Your task to perform on an android device: Add "usb-c to usb-a" to the cart on costco, then select checkout. Image 0: 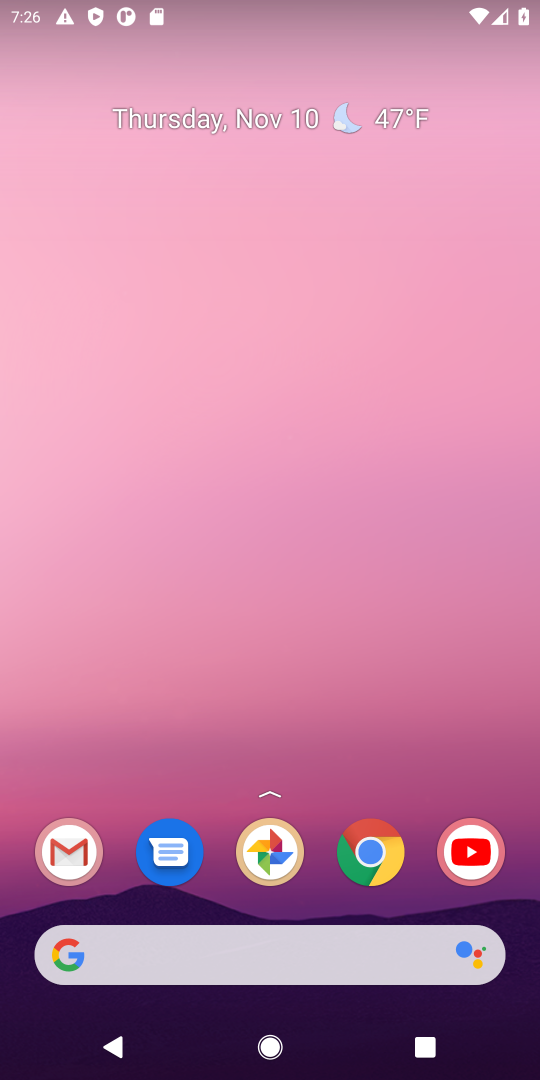
Step 0: click (370, 854)
Your task to perform on an android device: Add "usb-c to usb-a" to the cart on costco, then select checkout. Image 1: 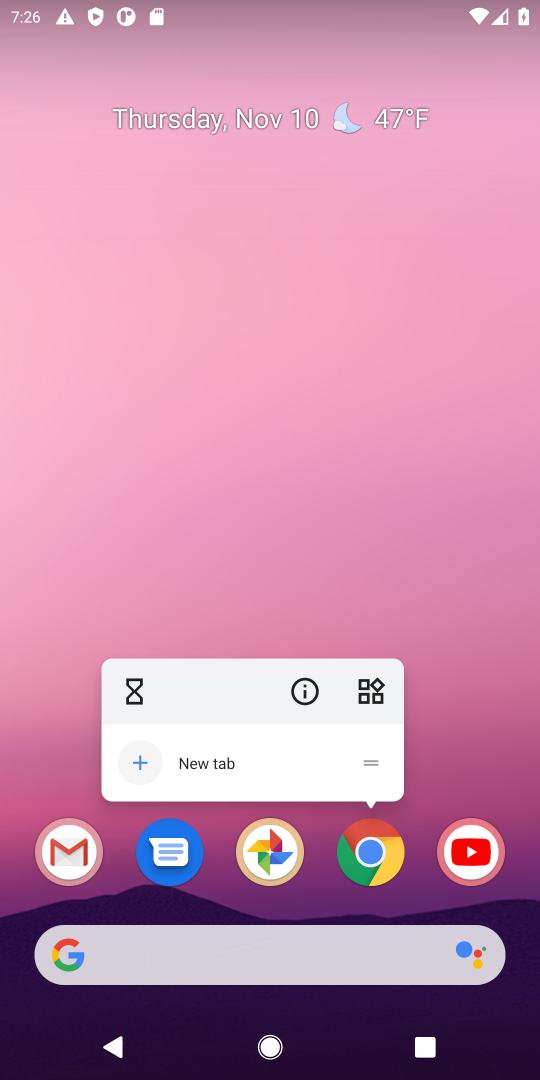
Step 1: click (377, 858)
Your task to perform on an android device: Add "usb-c to usb-a" to the cart on costco, then select checkout. Image 2: 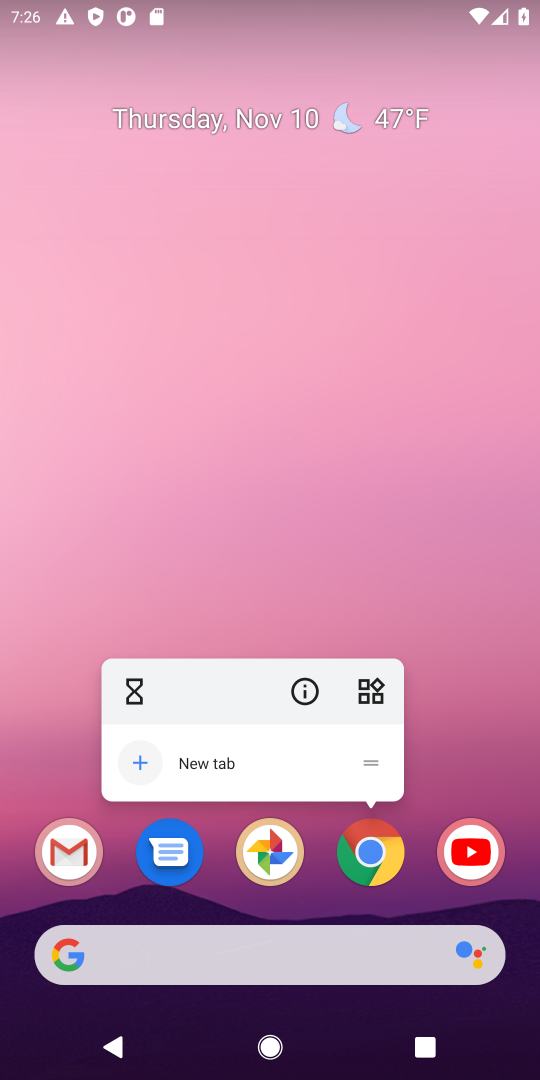
Step 2: click (377, 857)
Your task to perform on an android device: Add "usb-c to usb-a" to the cart on costco, then select checkout. Image 3: 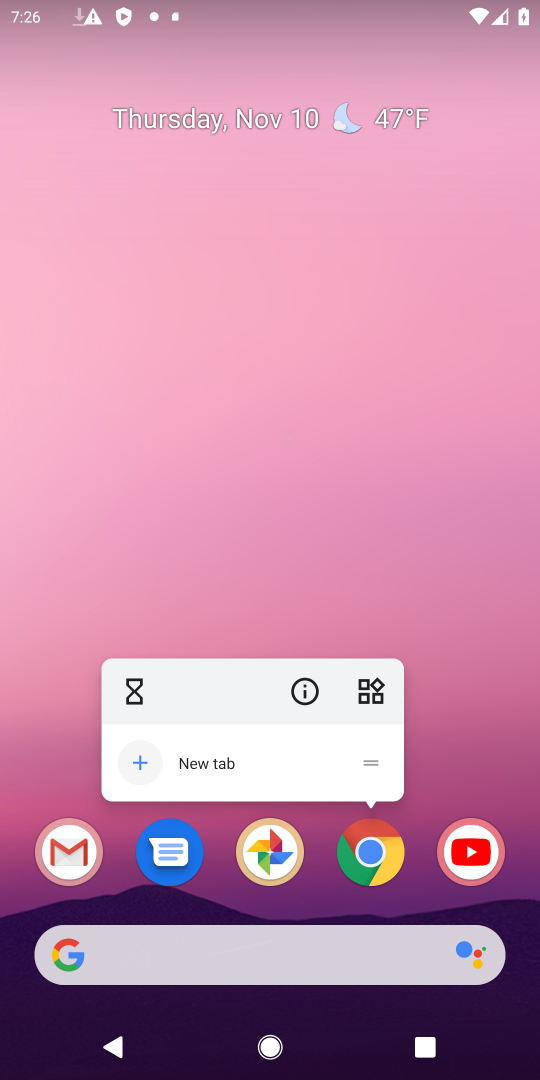
Step 3: click (377, 863)
Your task to perform on an android device: Add "usb-c to usb-a" to the cart on costco, then select checkout. Image 4: 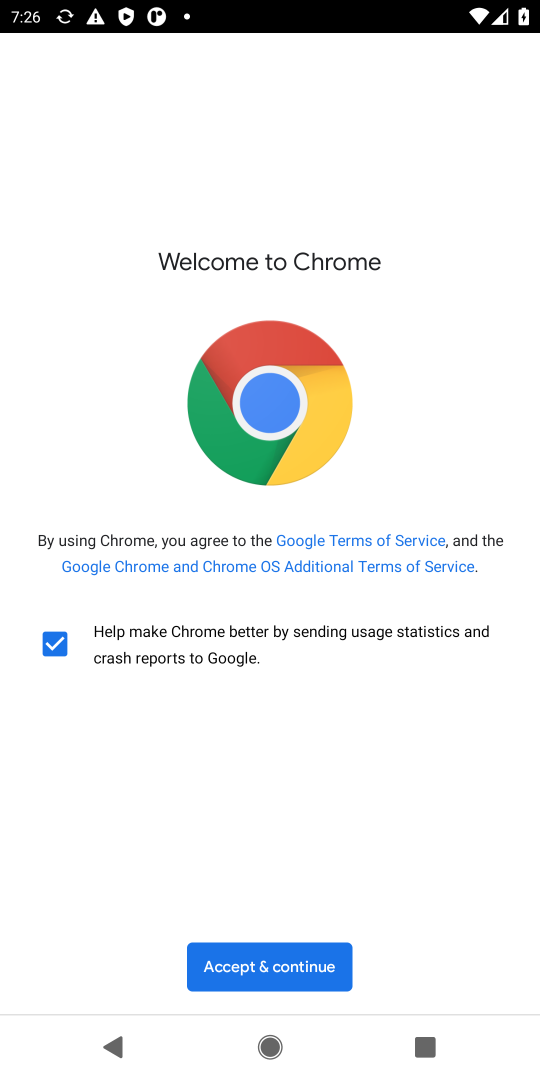
Step 4: click (237, 974)
Your task to perform on an android device: Add "usb-c to usb-a" to the cart on costco, then select checkout. Image 5: 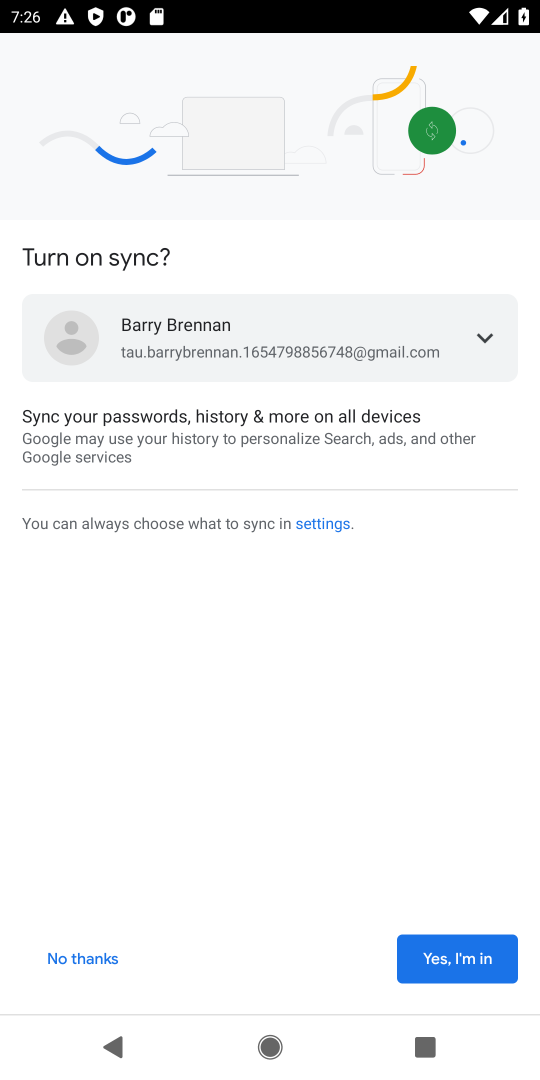
Step 5: click (472, 961)
Your task to perform on an android device: Add "usb-c to usb-a" to the cart on costco, then select checkout. Image 6: 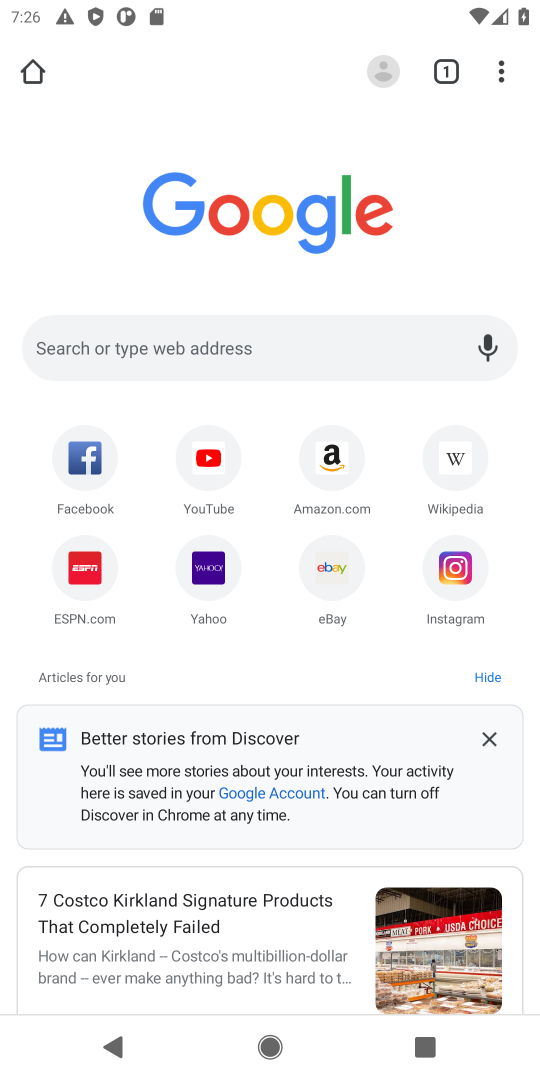
Step 6: click (180, 346)
Your task to perform on an android device: Add "usb-c to usb-a" to the cart on costco, then select checkout. Image 7: 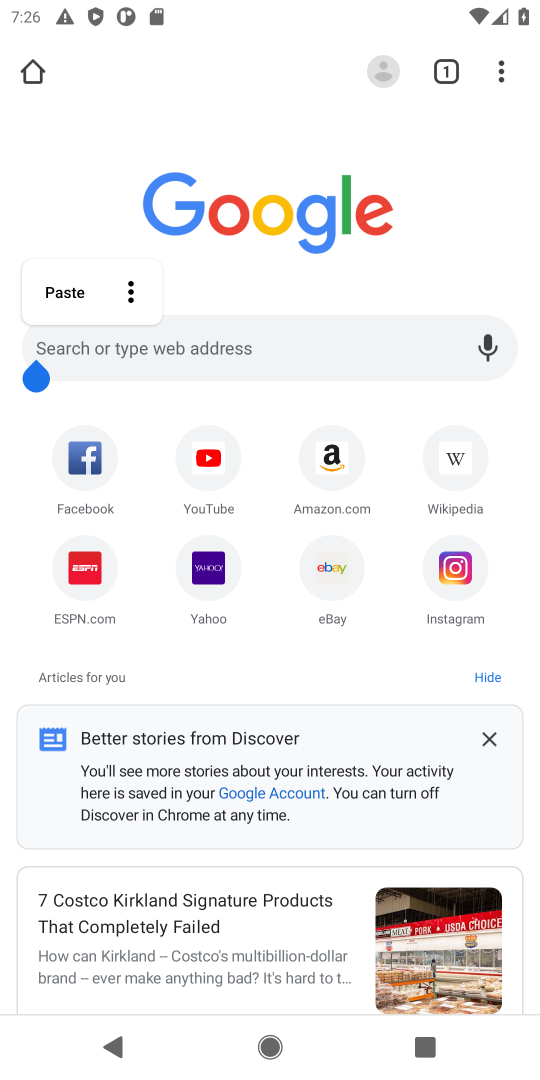
Step 7: click (167, 343)
Your task to perform on an android device: Add "usb-c to usb-a" to the cart on costco, then select checkout. Image 8: 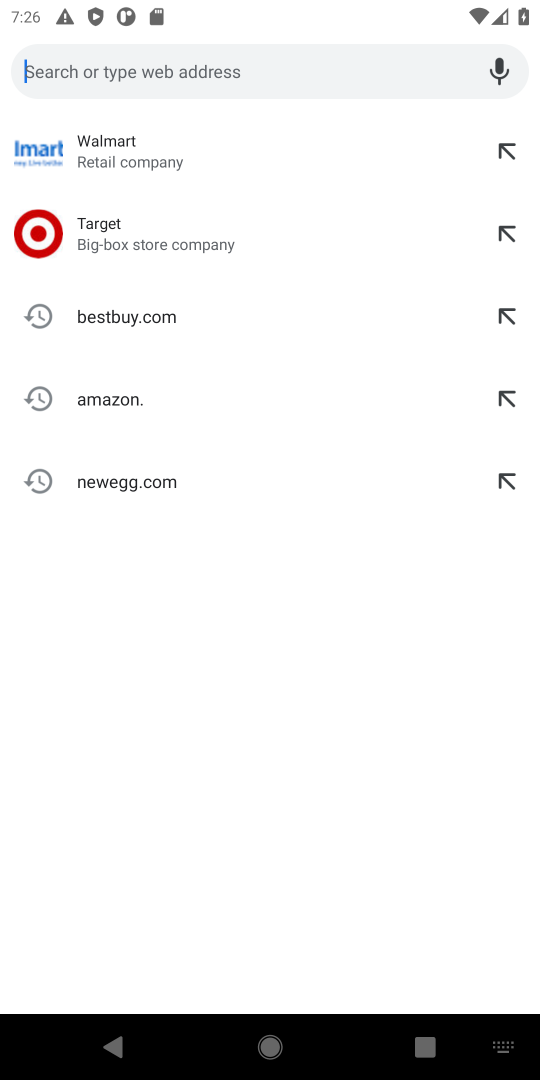
Step 8: type "costco"
Your task to perform on an android device: Add "usb-c to usb-a" to the cart on costco, then select checkout. Image 9: 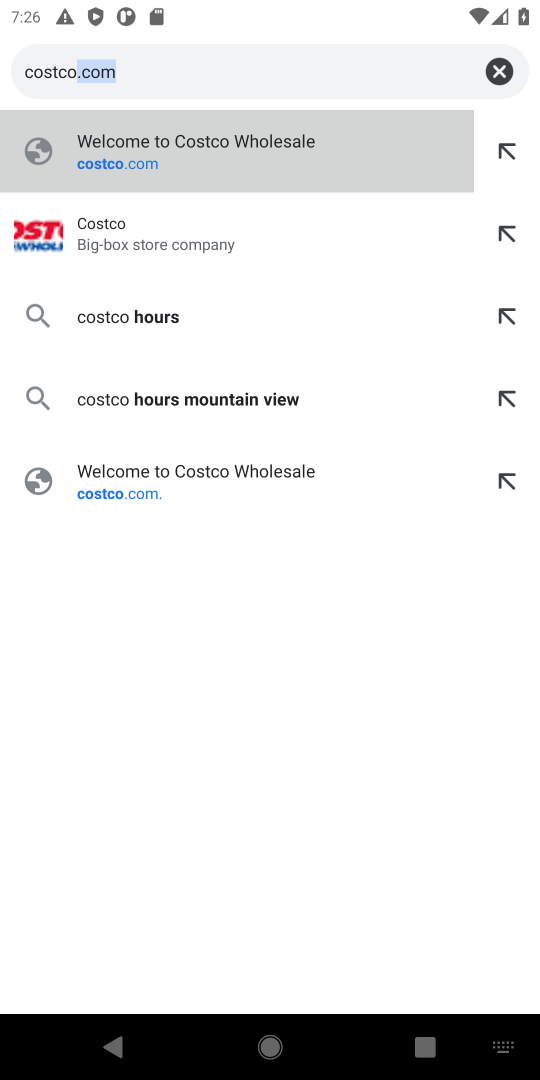
Step 9: press enter
Your task to perform on an android device: Add "usb-c to usb-a" to the cart on costco, then select checkout. Image 10: 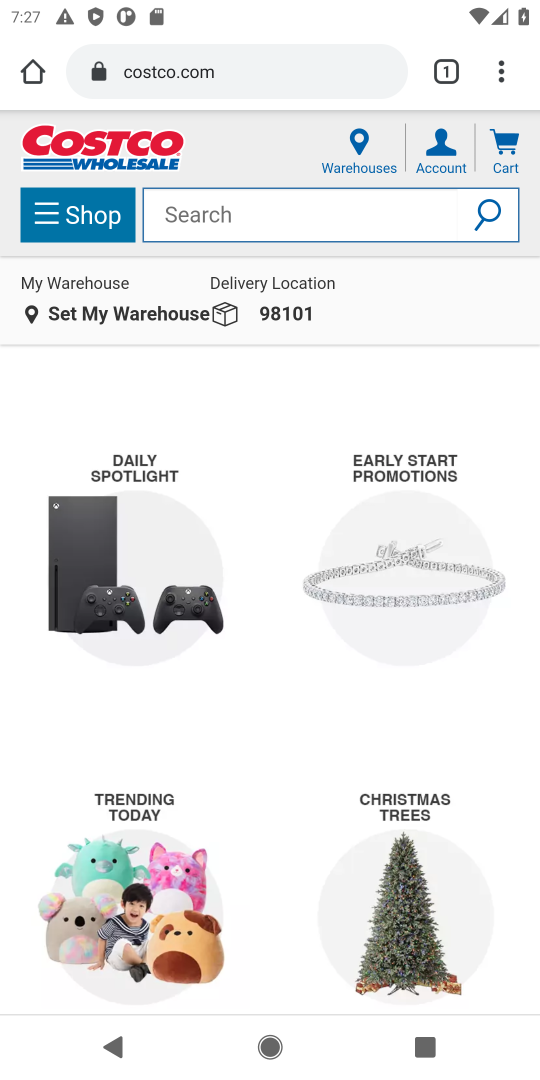
Step 10: click (254, 211)
Your task to perform on an android device: Add "usb-c to usb-a" to the cart on costco, then select checkout. Image 11: 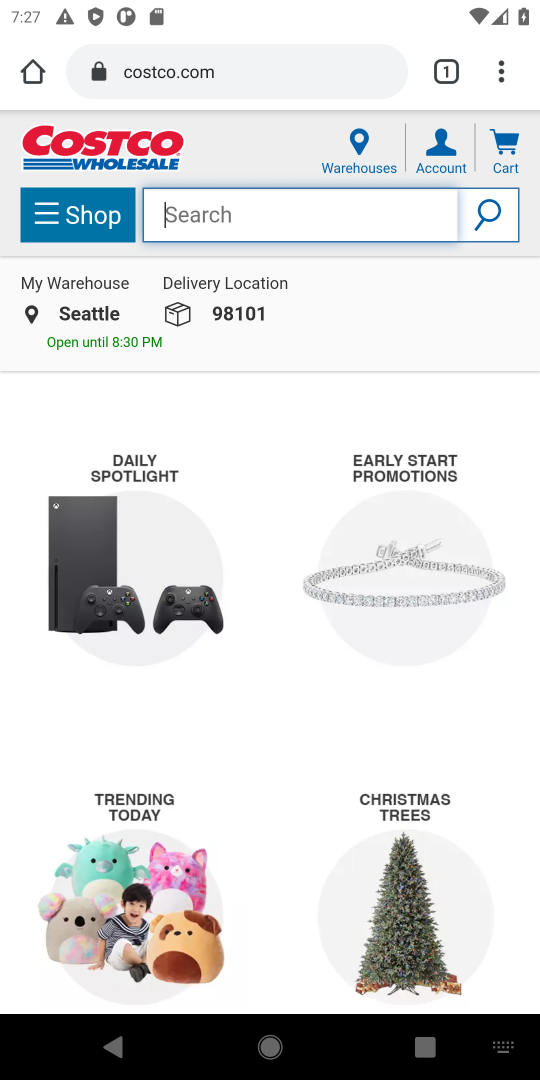
Step 11: type "usb-c to usb-a"
Your task to perform on an android device: Add "usb-c to usb-a" to the cart on costco, then select checkout. Image 12: 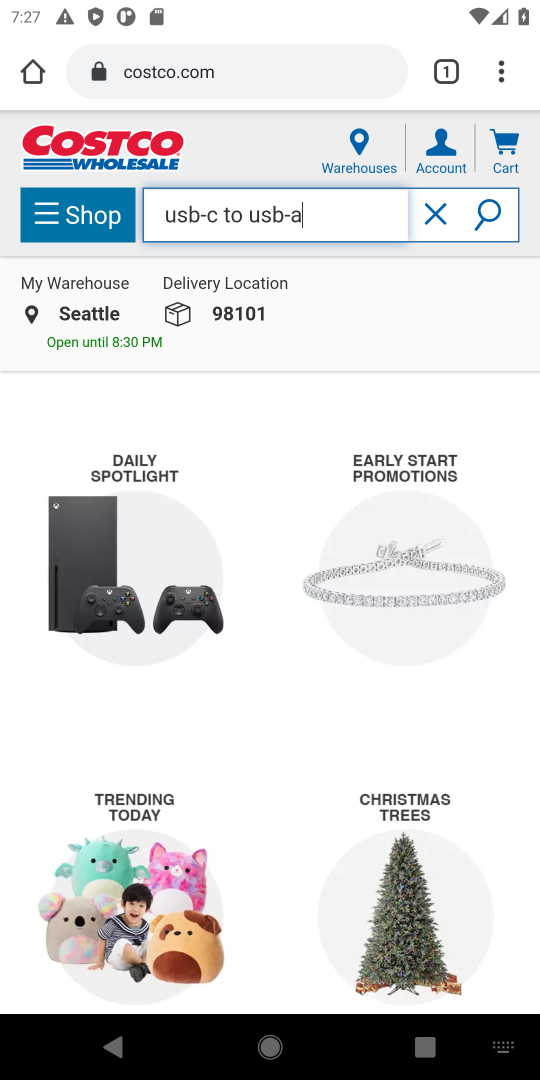
Step 12: press enter
Your task to perform on an android device: Add "usb-c to usb-a" to the cart on costco, then select checkout. Image 13: 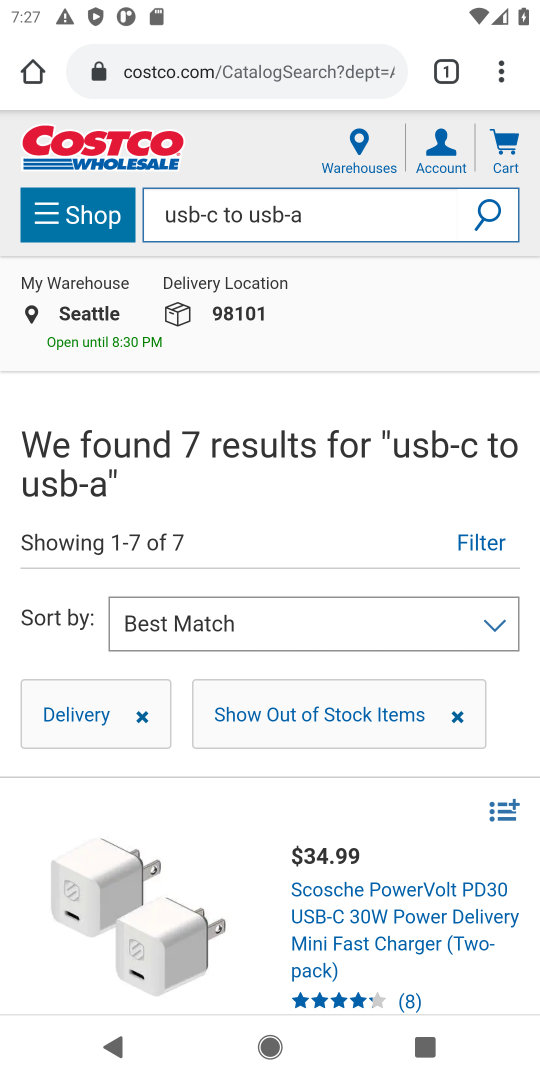
Step 13: task complete